Your task to perform on an android device: delete the emails in spam in the gmail app Image 0: 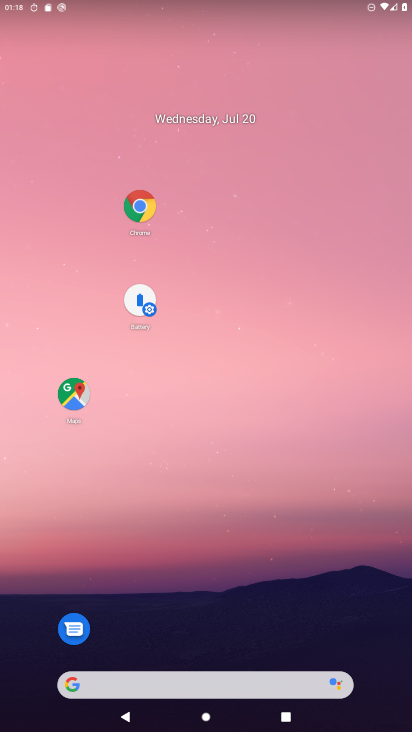
Step 0: drag from (182, 644) to (244, 14)
Your task to perform on an android device: delete the emails in spam in the gmail app Image 1: 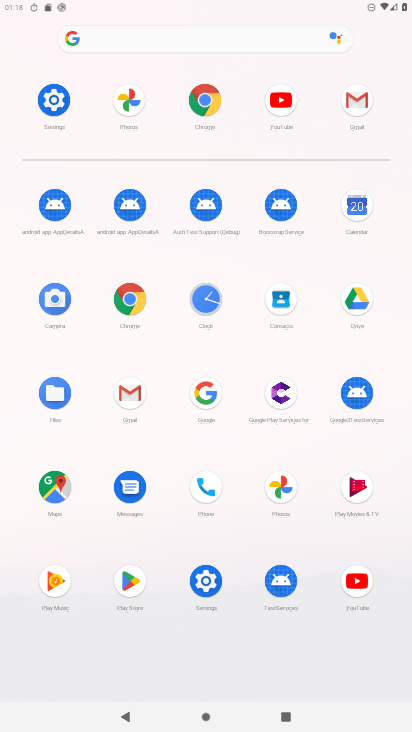
Step 1: click (124, 395)
Your task to perform on an android device: delete the emails in spam in the gmail app Image 2: 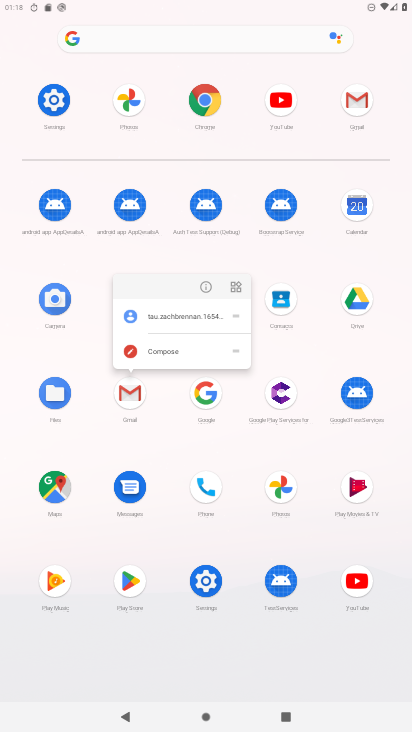
Step 2: click (204, 279)
Your task to perform on an android device: delete the emails in spam in the gmail app Image 3: 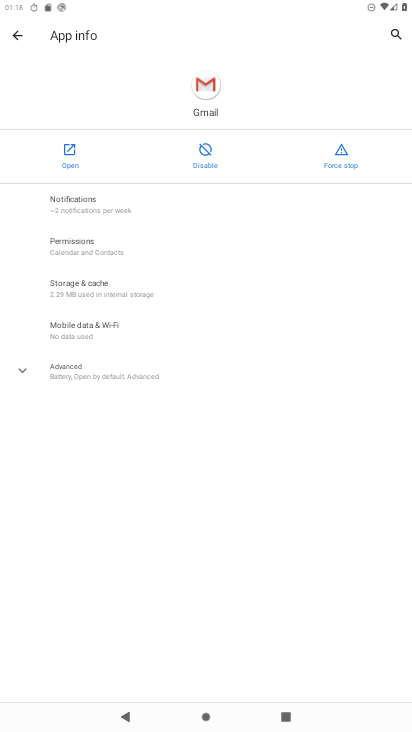
Step 3: click (65, 164)
Your task to perform on an android device: delete the emails in spam in the gmail app Image 4: 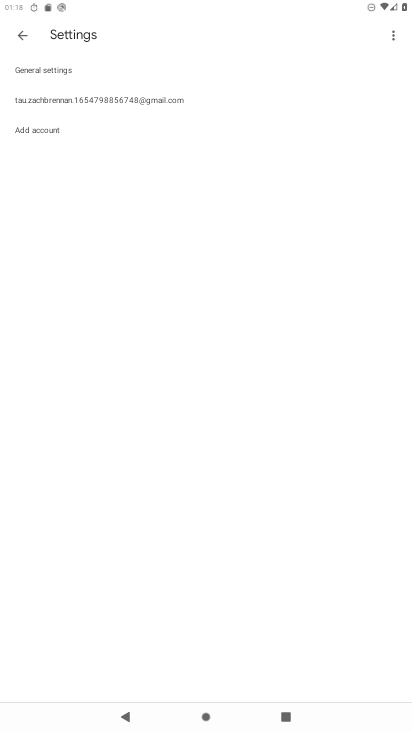
Step 4: click (17, 22)
Your task to perform on an android device: delete the emails in spam in the gmail app Image 5: 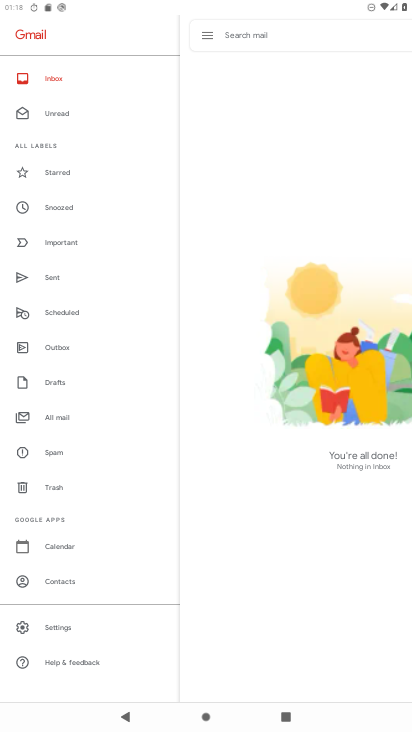
Step 5: click (60, 450)
Your task to perform on an android device: delete the emails in spam in the gmail app Image 6: 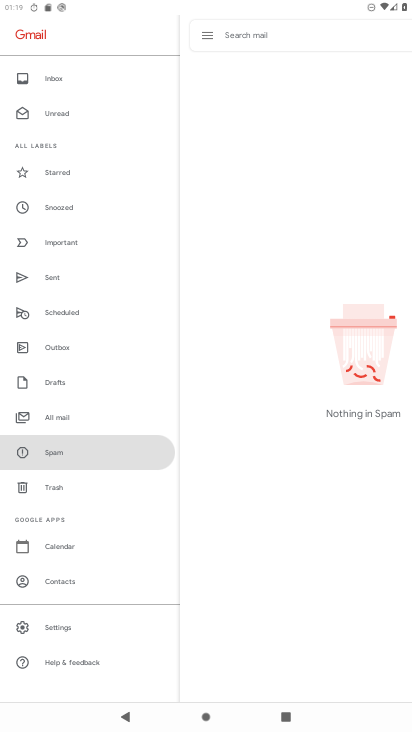
Step 6: task complete